Your task to perform on an android device: Go to Google maps Image 0: 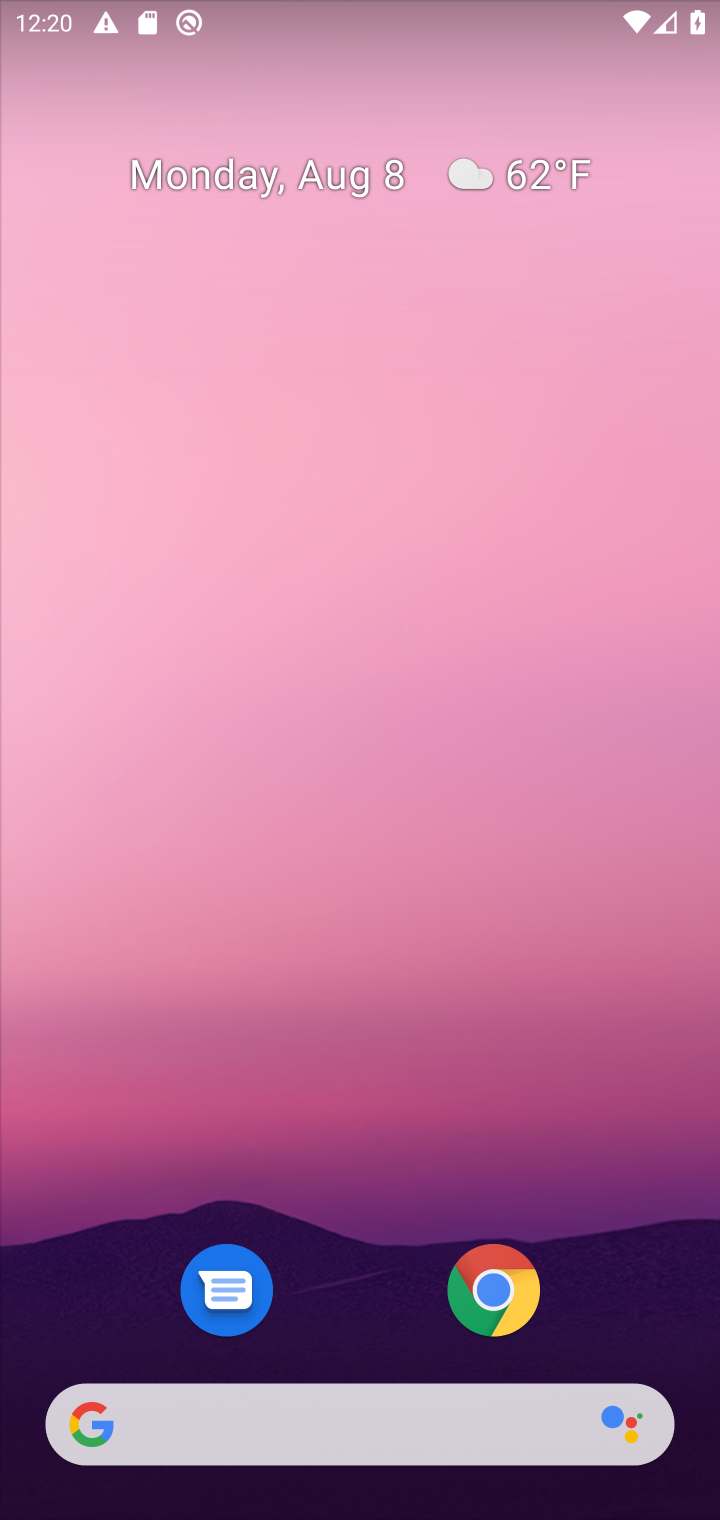
Step 0: drag from (354, 1183) to (403, 630)
Your task to perform on an android device: Go to Google maps Image 1: 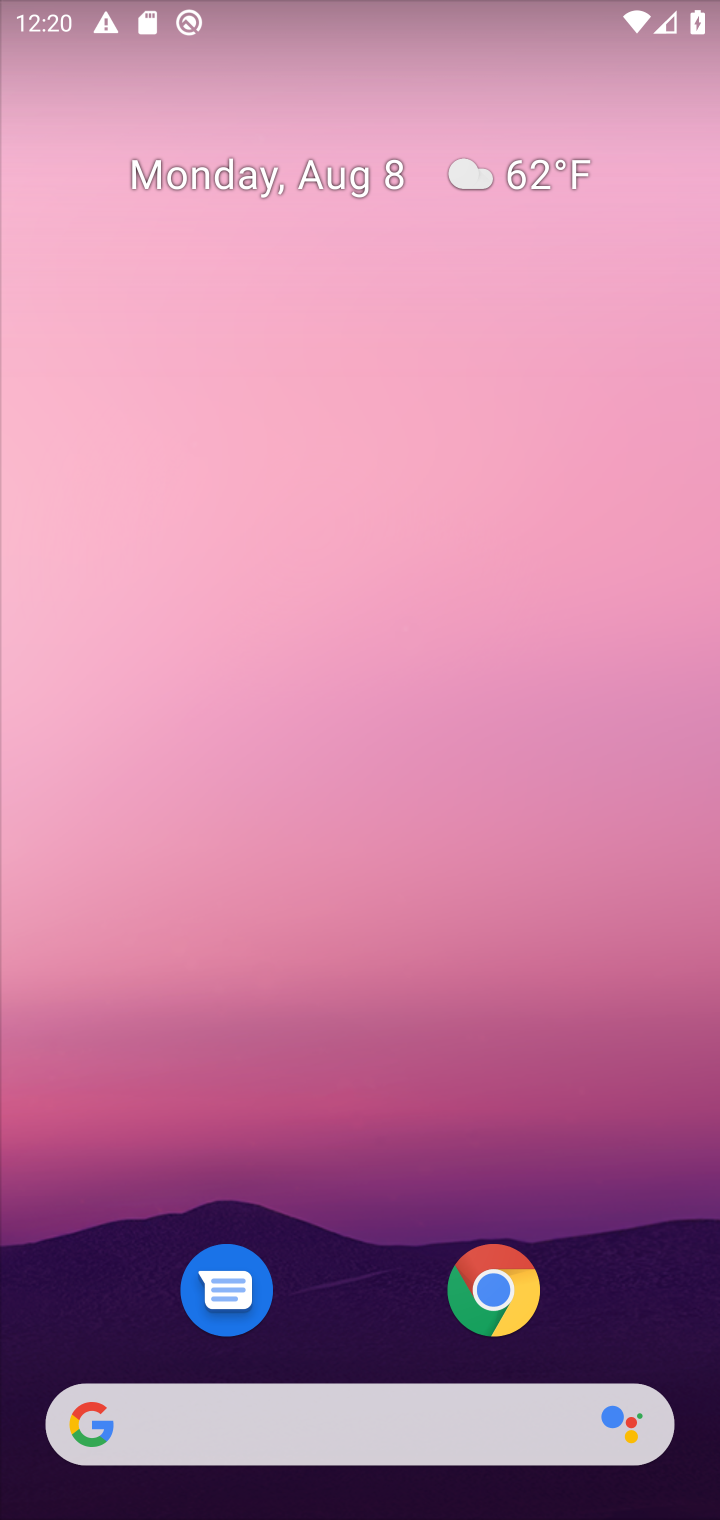
Step 1: drag from (342, 1343) to (446, 157)
Your task to perform on an android device: Go to Google maps Image 2: 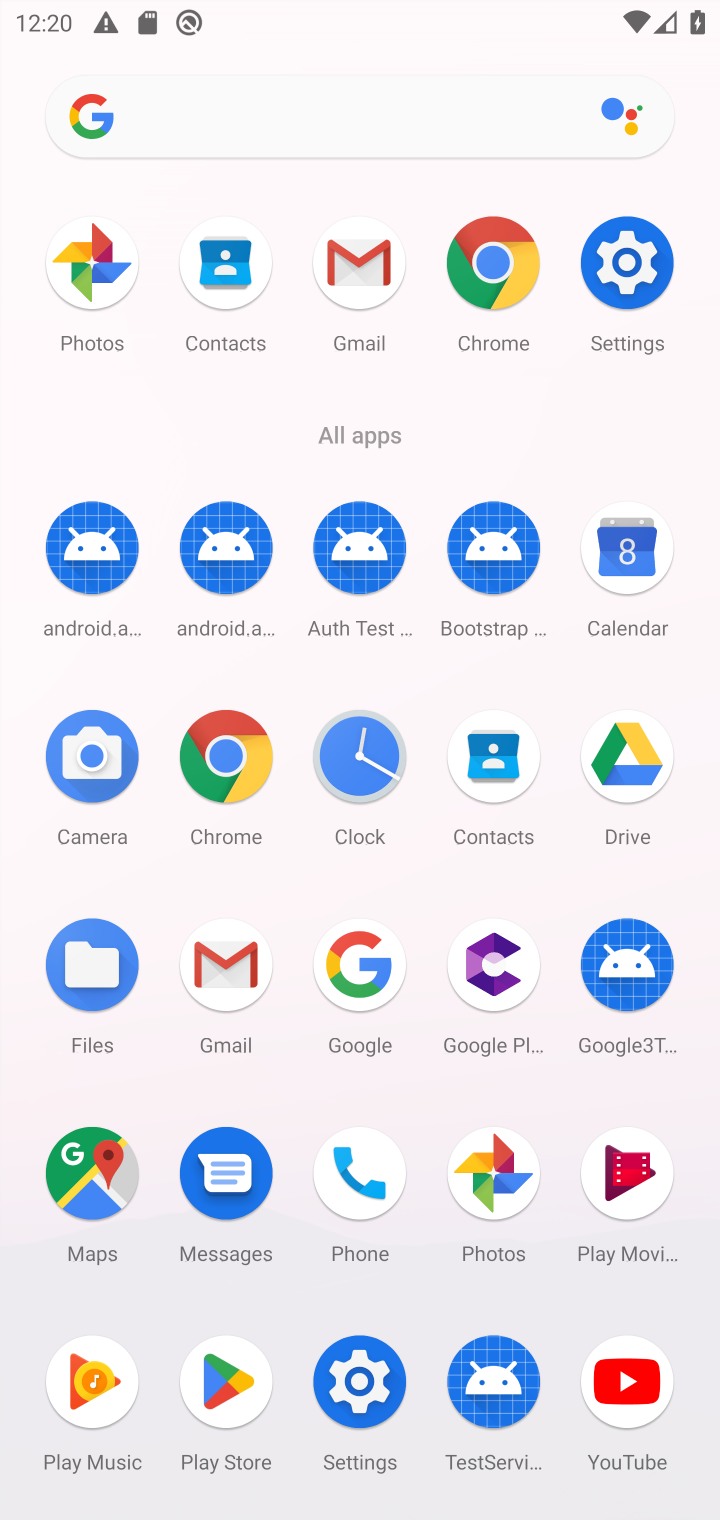
Step 2: click (116, 1173)
Your task to perform on an android device: Go to Google maps Image 3: 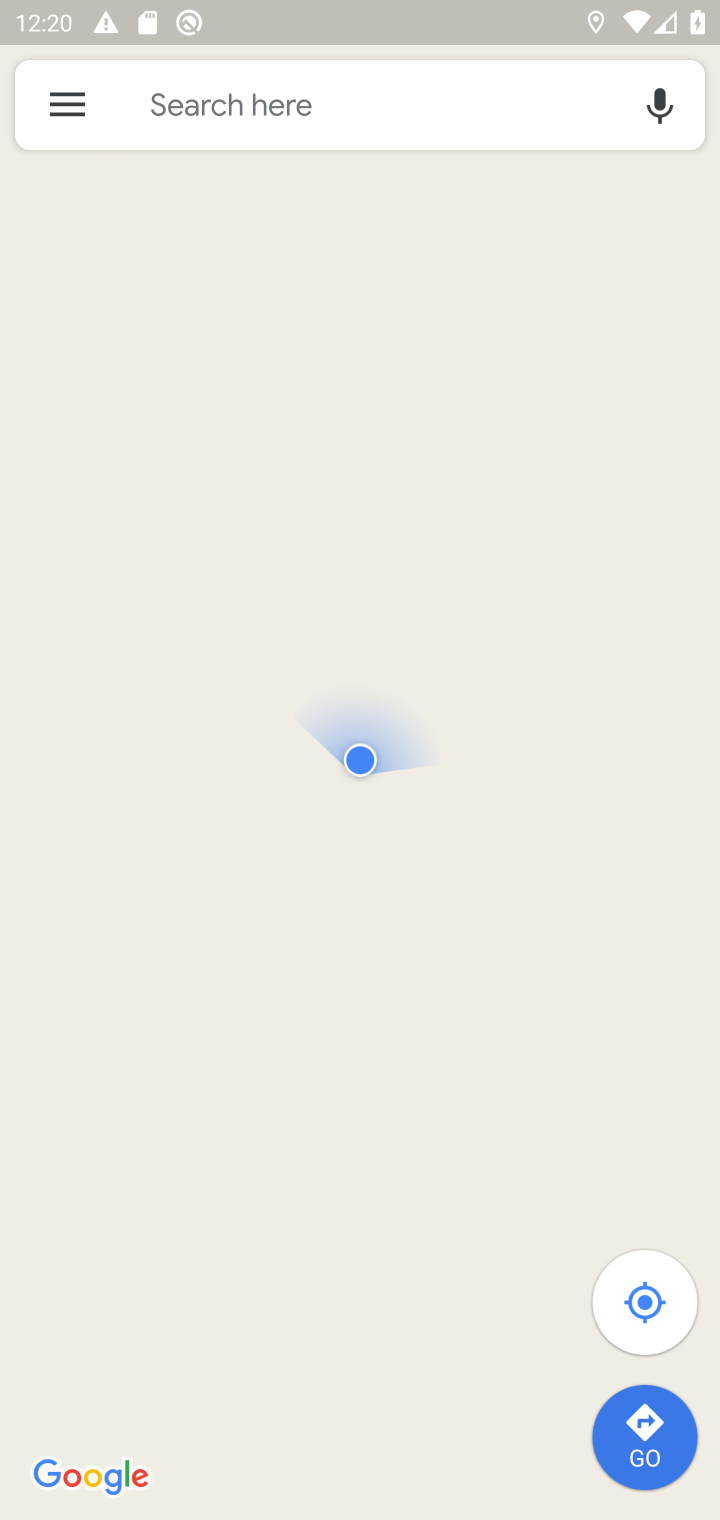
Step 3: task complete